Your task to perform on an android device: When is my next meeting? Image 0: 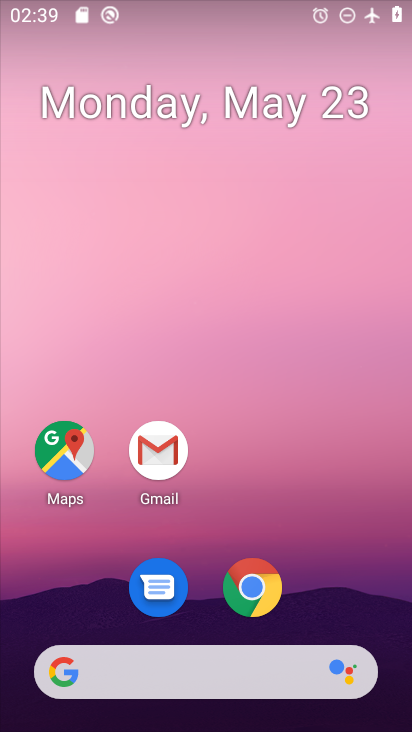
Step 0: drag from (355, 618) to (335, 21)
Your task to perform on an android device: When is my next meeting? Image 1: 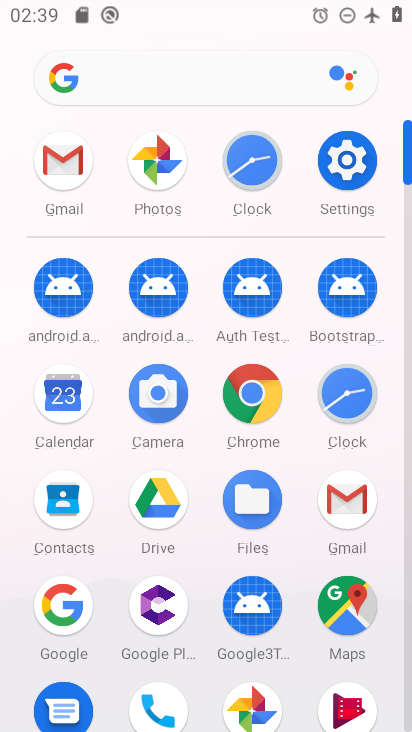
Step 1: drag from (58, 432) to (215, 454)
Your task to perform on an android device: When is my next meeting? Image 2: 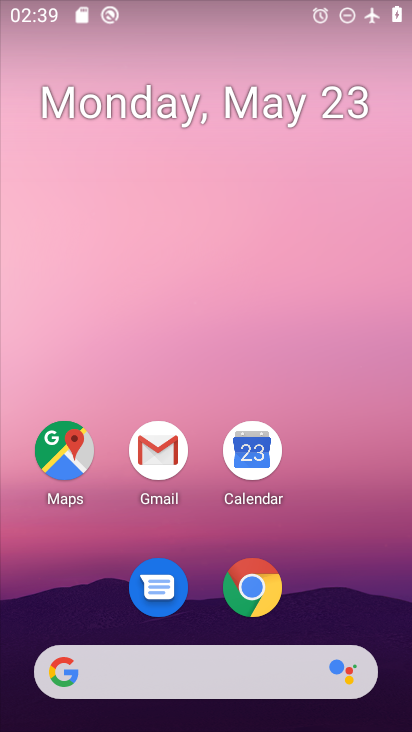
Step 2: click (215, 454)
Your task to perform on an android device: When is my next meeting? Image 3: 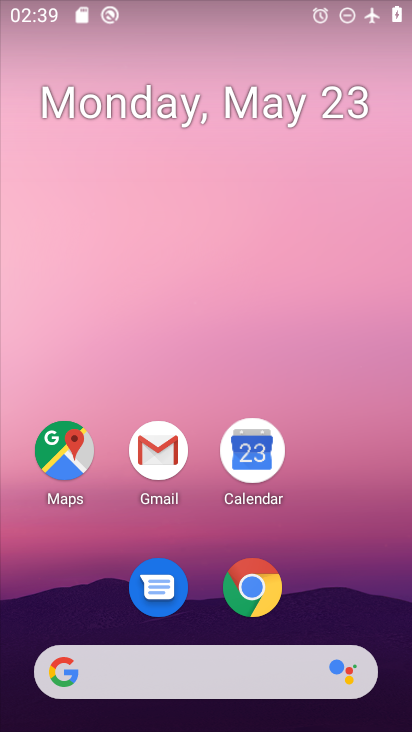
Step 3: click (215, 454)
Your task to perform on an android device: When is my next meeting? Image 4: 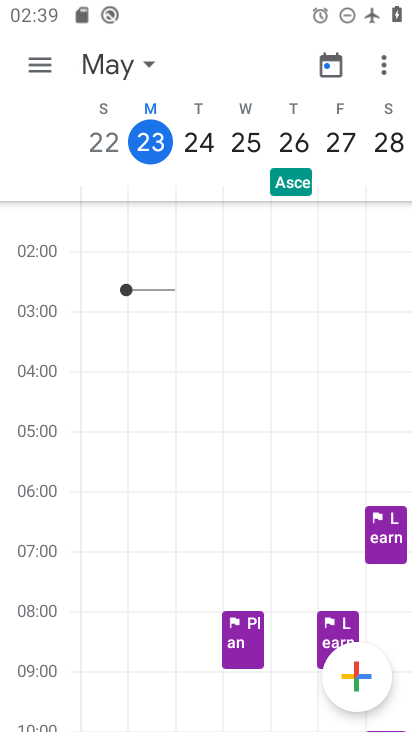
Step 4: task complete